Your task to perform on an android device: change keyboard looks Image 0: 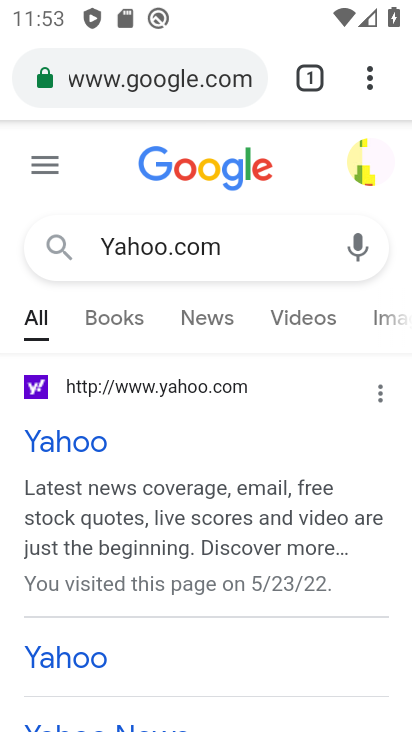
Step 0: press home button
Your task to perform on an android device: change keyboard looks Image 1: 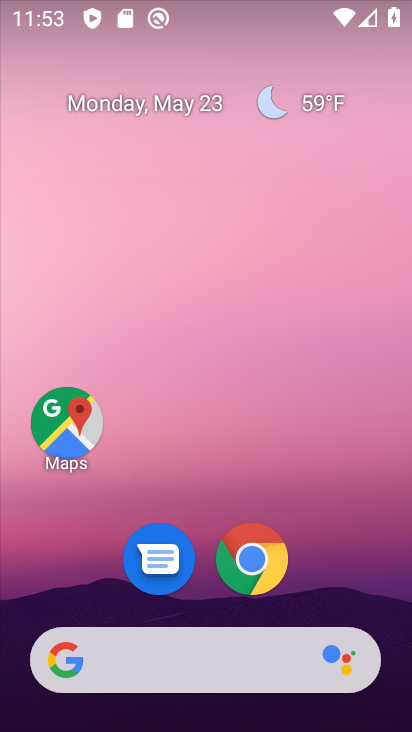
Step 1: drag from (397, 710) to (345, 201)
Your task to perform on an android device: change keyboard looks Image 2: 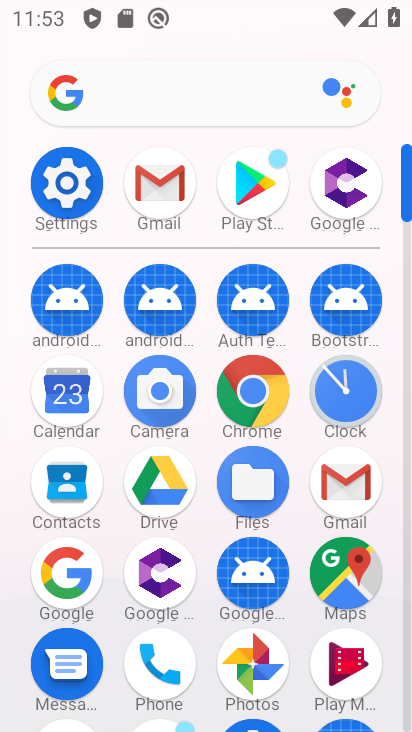
Step 2: click (62, 175)
Your task to perform on an android device: change keyboard looks Image 3: 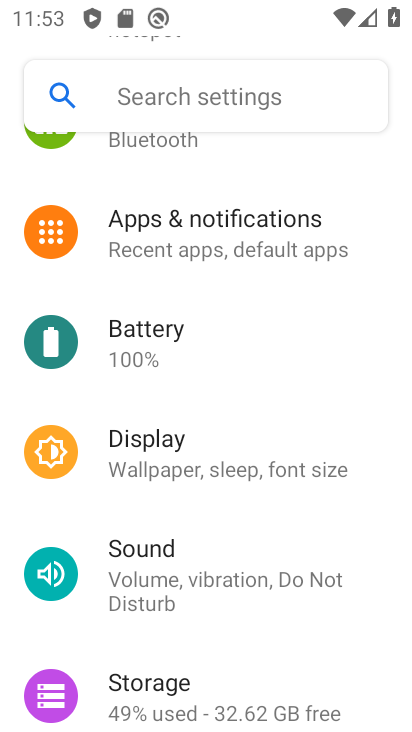
Step 3: drag from (388, 700) to (405, 305)
Your task to perform on an android device: change keyboard looks Image 4: 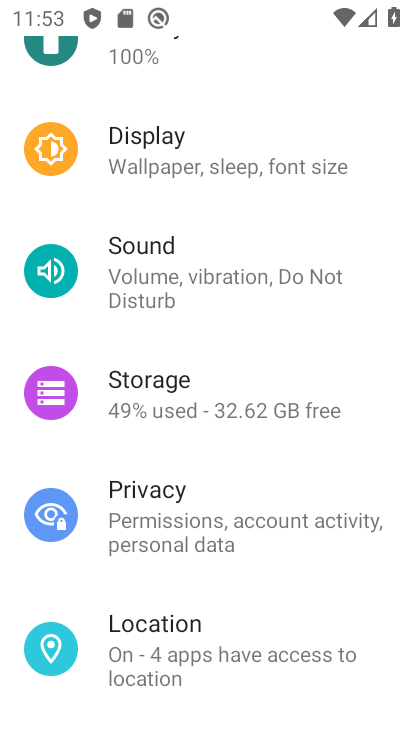
Step 4: drag from (386, 637) to (381, 209)
Your task to perform on an android device: change keyboard looks Image 5: 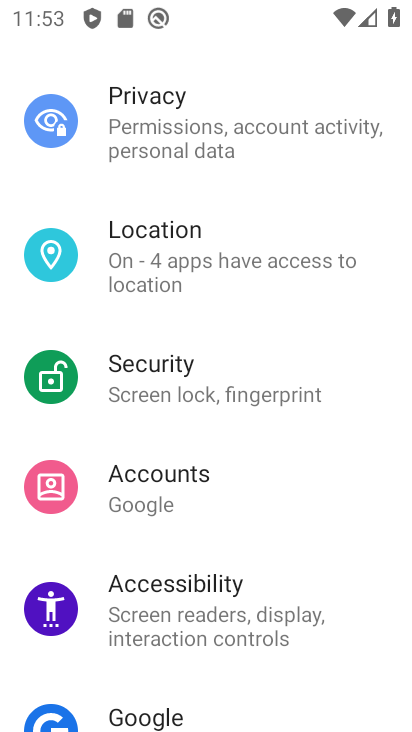
Step 5: drag from (362, 650) to (346, 289)
Your task to perform on an android device: change keyboard looks Image 6: 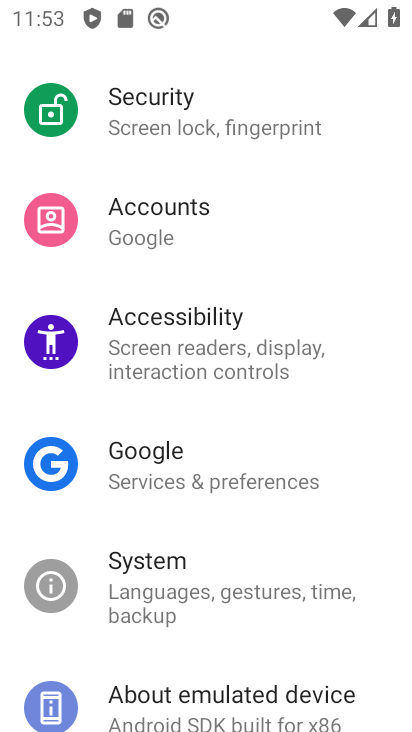
Step 6: click (150, 591)
Your task to perform on an android device: change keyboard looks Image 7: 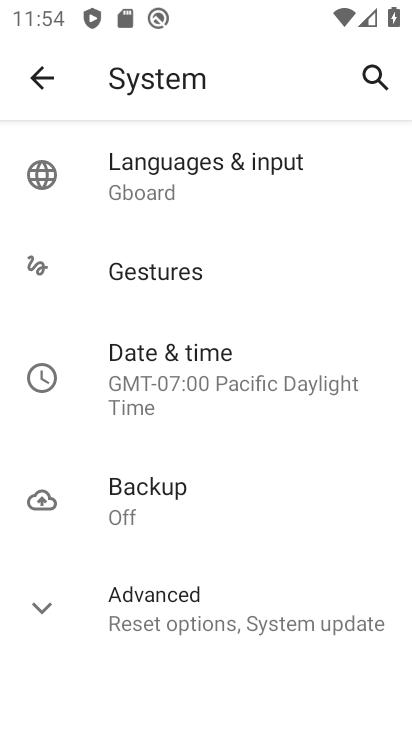
Step 7: drag from (373, 558) to (367, 231)
Your task to perform on an android device: change keyboard looks Image 8: 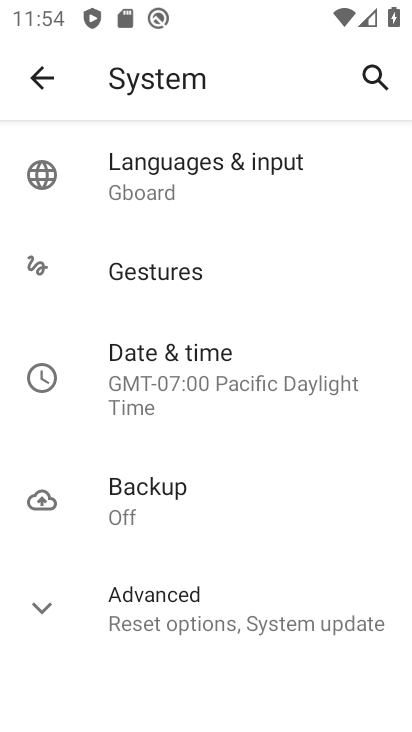
Step 8: click (170, 168)
Your task to perform on an android device: change keyboard looks Image 9: 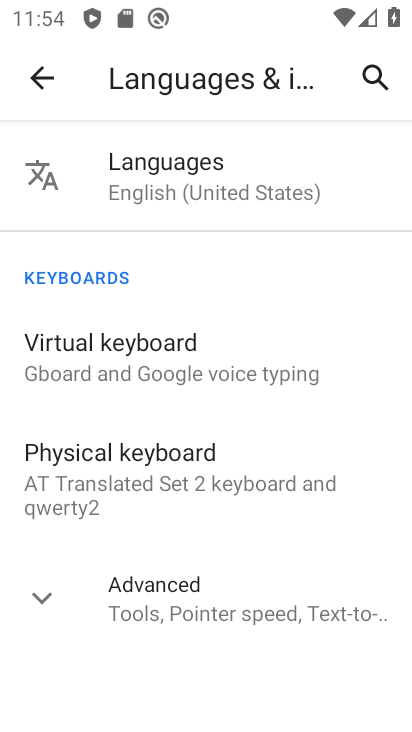
Step 9: click (98, 356)
Your task to perform on an android device: change keyboard looks Image 10: 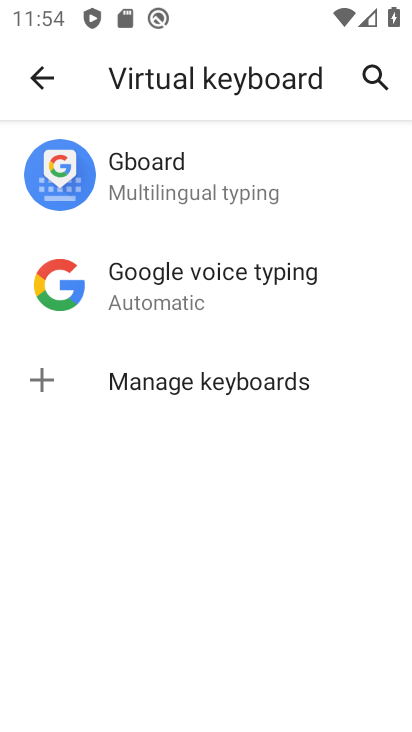
Step 10: click (146, 170)
Your task to perform on an android device: change keyboard looks Image 11: 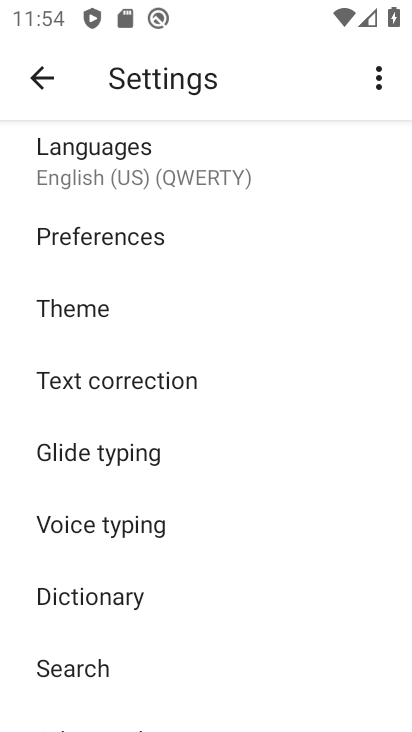
Step 11: drag from (263, 673) to (262, 257)
Your task to perform on an android device: change keyboard looks Image 12: 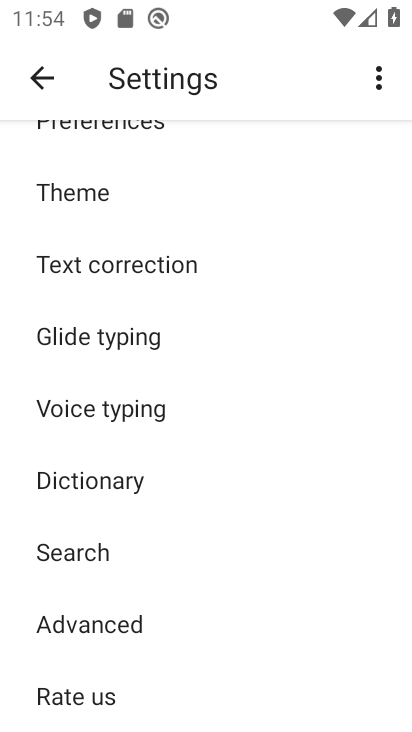
Step 12: drag from (265, 233) to (294, 583)
Your task to perform on an android device: change keyboard looks Image 13: 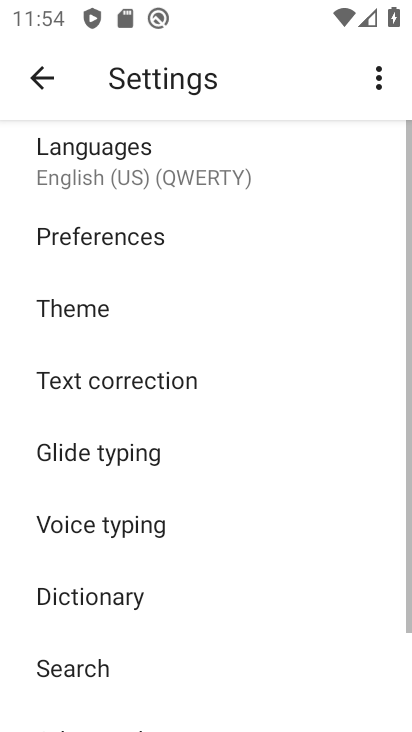
Step 13: drag from (283, 233) to (288, 447)
Your task to perform on an android device: change keyboard looks Image 14: 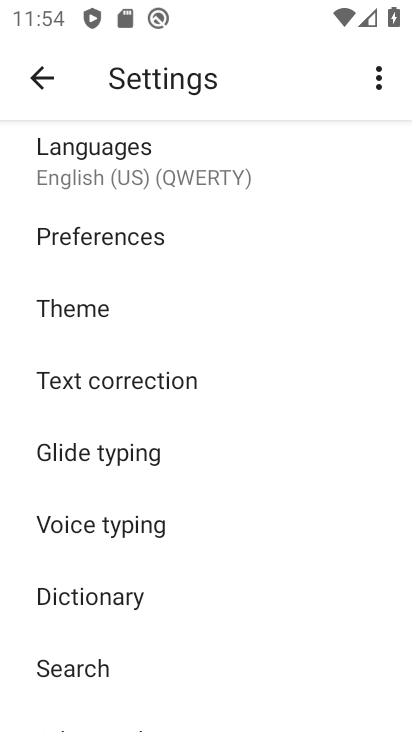
Step 14: click (84, 306)
Your task to perform on an android device: change keyboard looks Image 15: 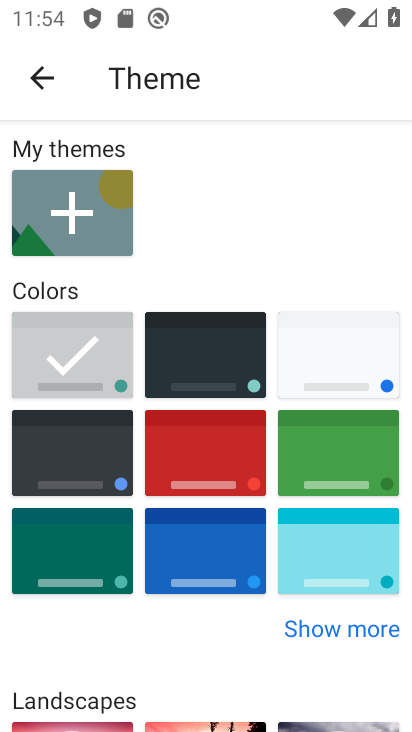
Step 15: click (162, 536)
Your task to perform on an android device: change keyboard looks Image 16: 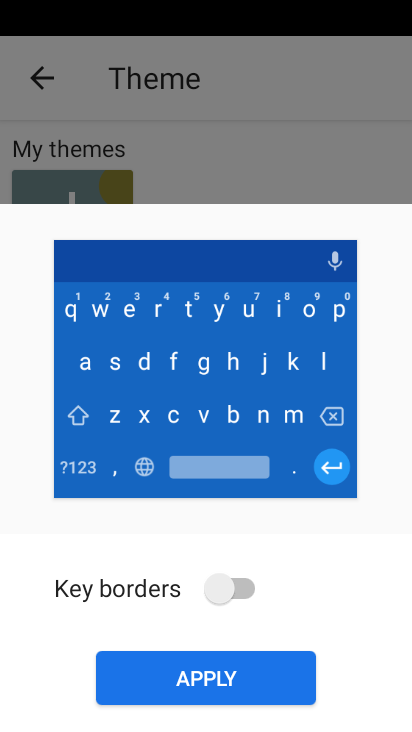
Step 16: click (234, 580)
Your task to perform on an android device: change keyboard looks Image 17: 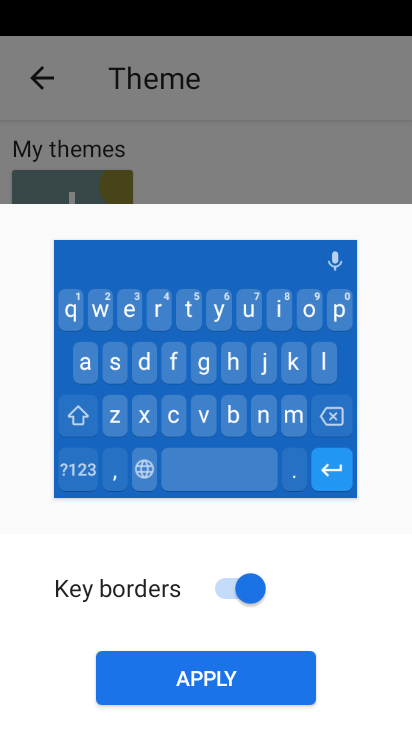
Step 17: click (265, 693)
Your task to perform on an android device: change keyboard looks Image 18: 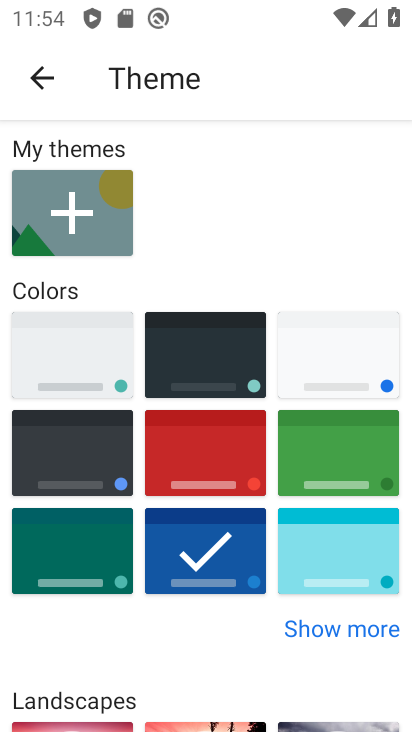
Step 18: task complete